Your task to perform on an android device: delete browsing data in the chrome app Image 0: 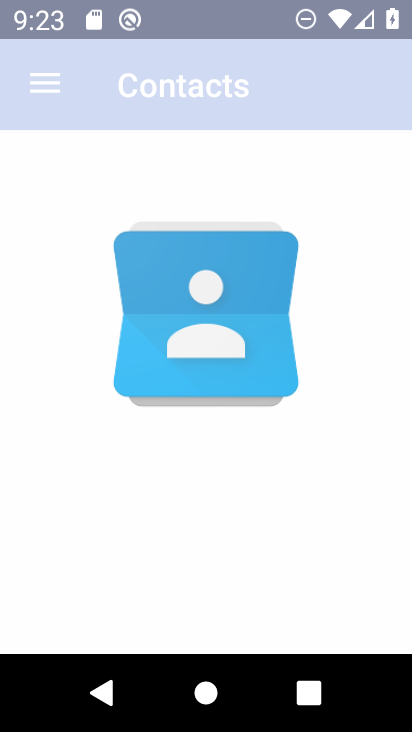
Step 0: drag from (257, 338) to (370, 132)
Your task to perform on an android device: delete browsing data in the chrome app Image 1: 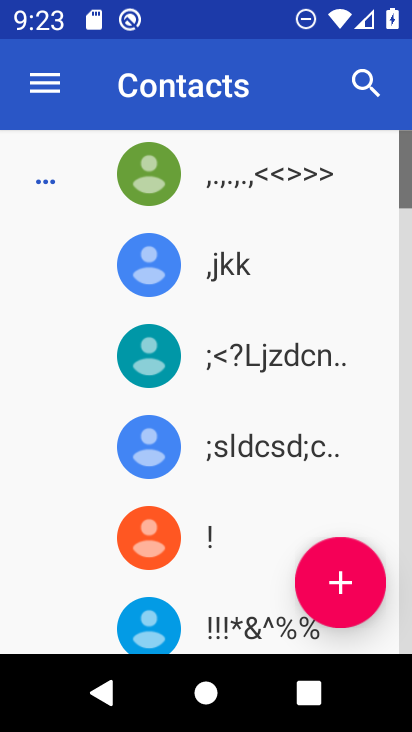
Step 1: press home button
Your task to perform on an android device: delete browsing data in the chrome app Image 2: 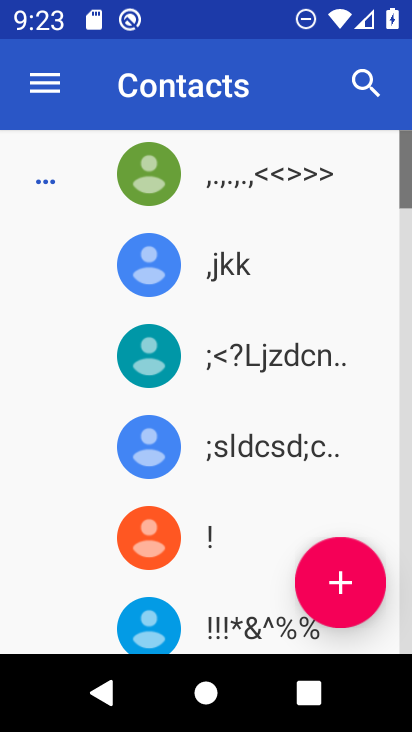
Step 2: drag from (370, 132) to (411, 393)
Your task to perform on an android device: delete browsing data in the chrome app Image 3: 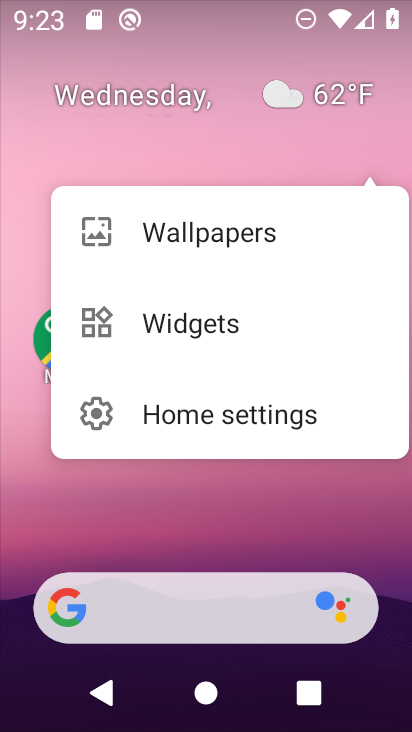
Step 3: click (214, 526)
Your task to perform on an android device: delete browsing data in the chrome app Image 4: 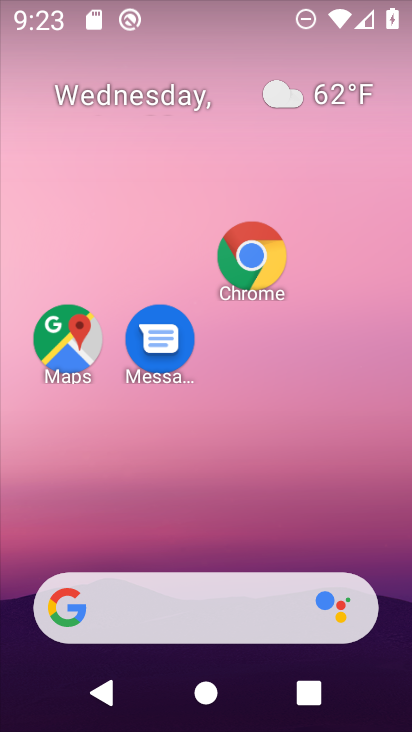
Step 4: click (249, 254)
Your task to perform on an android device: delete browsing data in the chrome app Image 5: 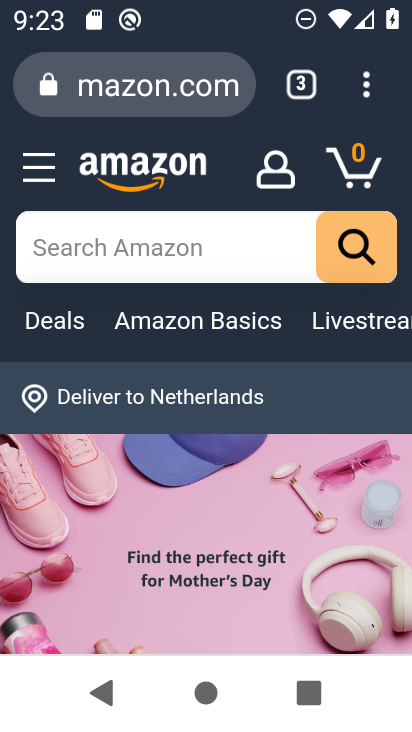
Step 5: click (360, 88)
Your task to perform on an android device: delete browsing data in the chrome app Image 6: 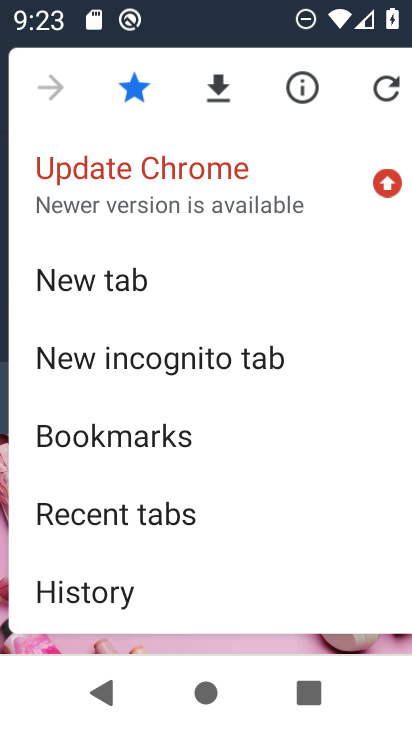
Step 6: drag from (240, 505) to (264, 72)
Your task to perform on an android device: delete browsing data in the chrome app Image 7: 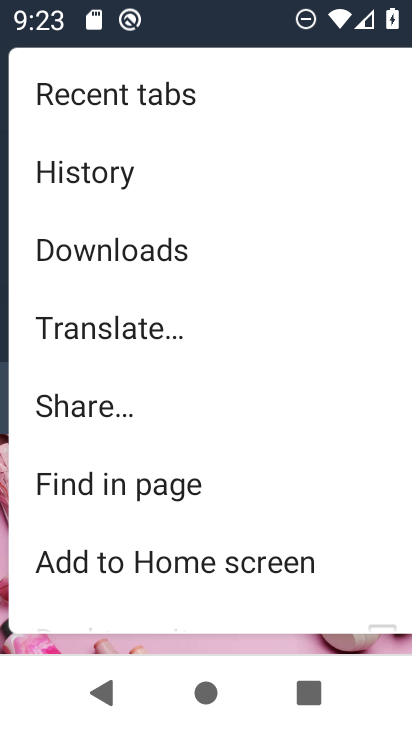
Step 7: drag from (179, 588) to (179, 252)
Your task to perform on an android device: delete browsing data in the chrome app Image 8: 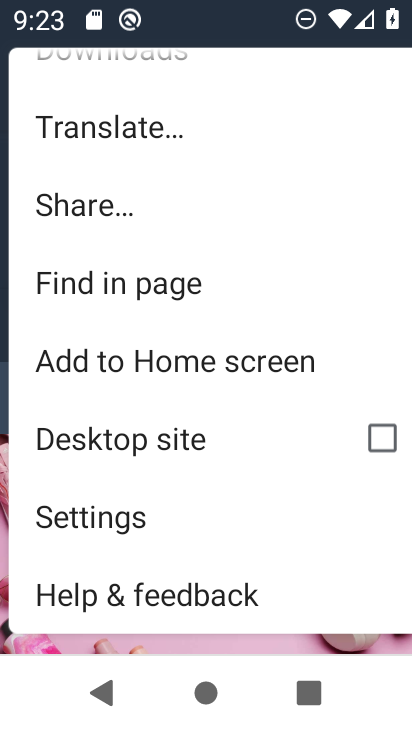
Step 8: click (140, 518)
Your task to perform on an android device: delete browsing data in the chrome app Image 9: 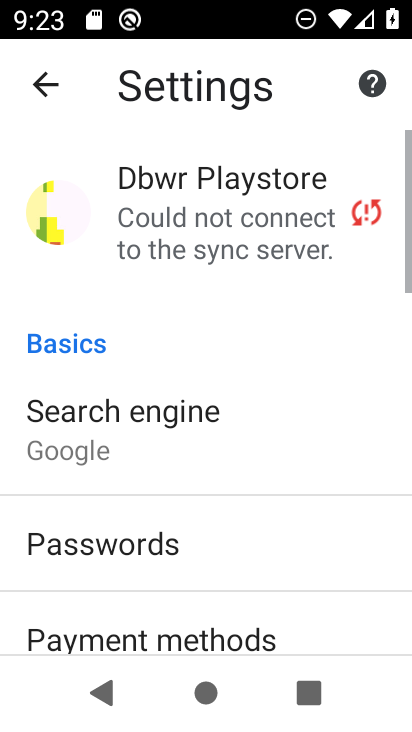
Step 9: drag from (257, 571) to (235, 151)
Your task to perform on an android device: delete browsing data in the chrome app Image 10: 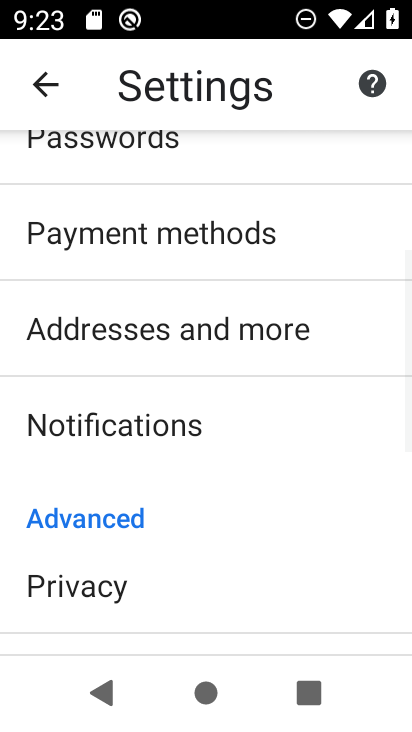
Step 10: drag from (193, 525) to (173, 118)
Your task to perform on an android device: delete browsing data in the chrome app Image 11: 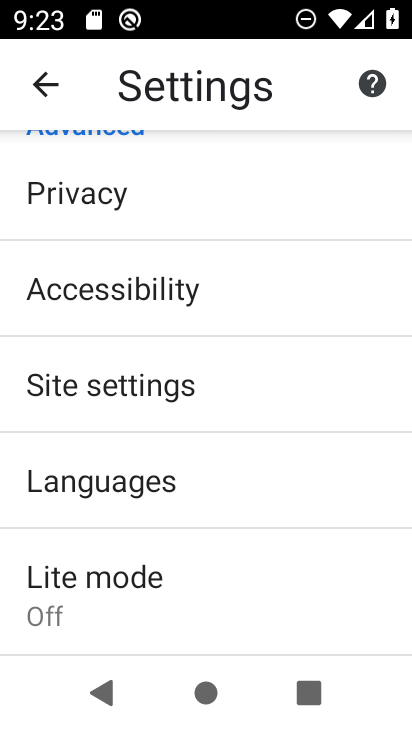
Step 11: click (82, 205)
Your task to perform on an android device: delete browsing data in the chrome app Image 12: 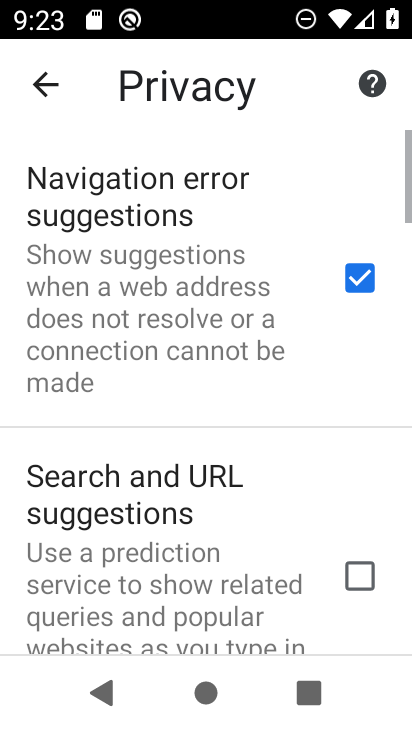
Step 12: drag from (229, 600) to (228, 137)
Your task to perform on an android device: delete browsing data in the chrome app Image 13: 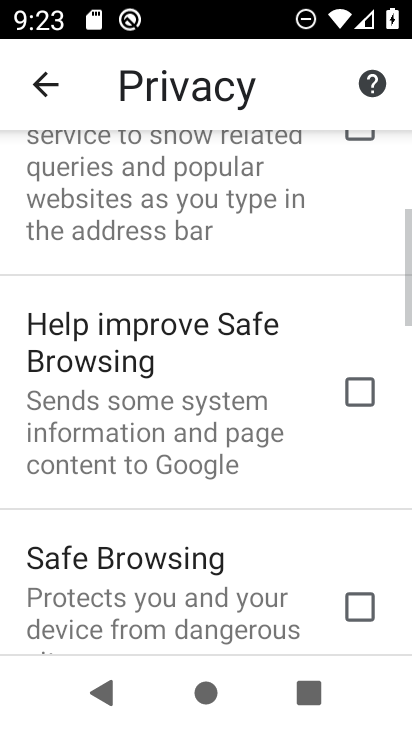
Step 13: drag from (244, 522) to (230, 120)
Your task to perform on an android device: delete browsing data in the chrome app Image 14: 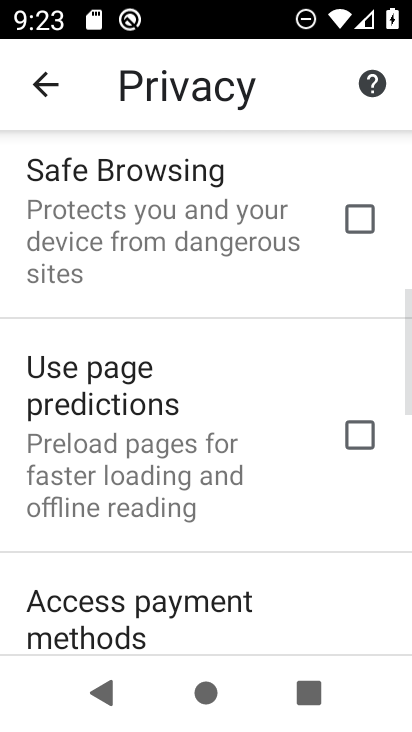
Step 14: drag from (265, 614) to (196, 81)
Your task to perform on an android device: delete browsing data in the chrome app Image 15: 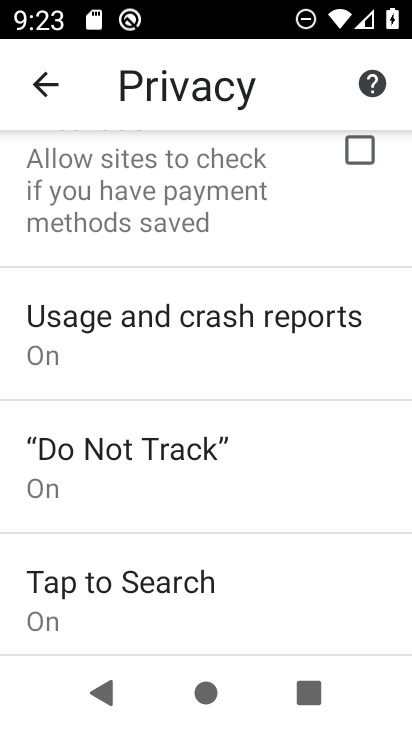
Step 15: drag from (280, 596) to (215, 99)
Your task to perform on an android device: delete browsing data in the chrome app Image 16: 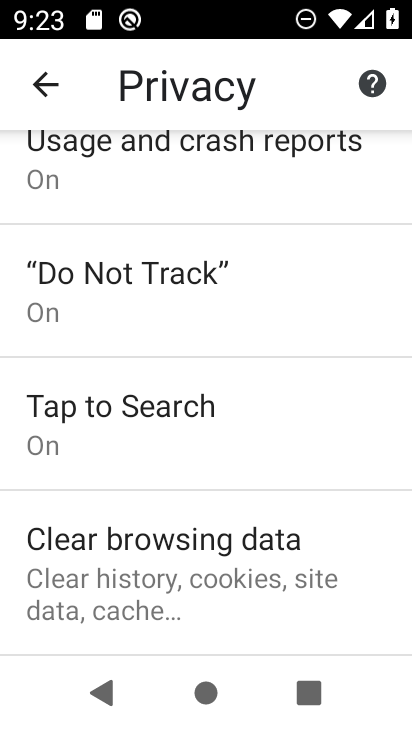
Step 16: click (263, 598)
Your task to perform on an android device: delete browsing data in the chrome app Image 17: 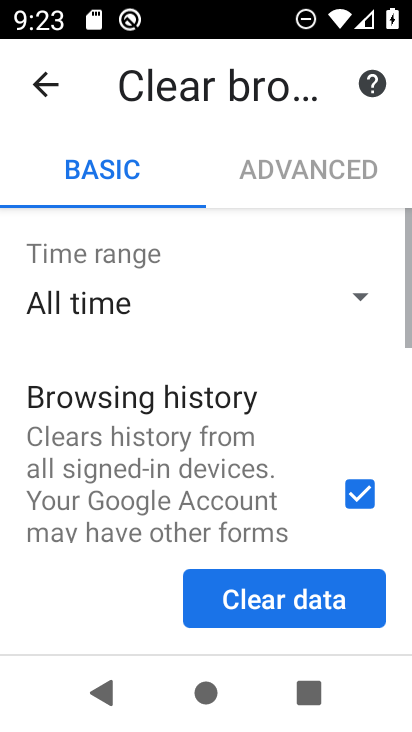
Step 17: drag from (330, 486) to (289, 225)
Your task to perform on an android device: delete browsing data in the chrome app Image 18: 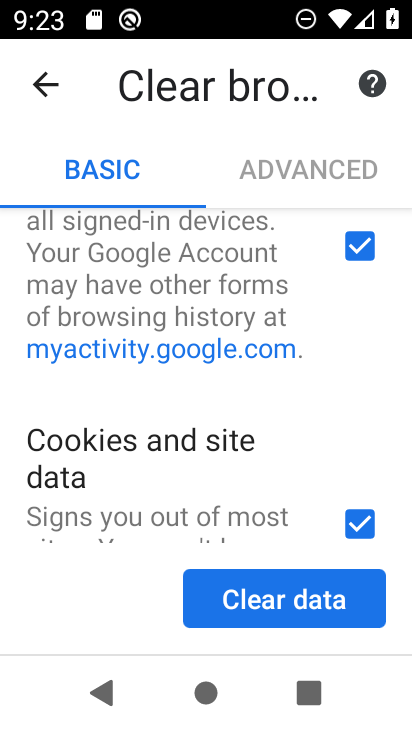
Step 18: click (361, 513)
Your task to perform on an android device: delete browsing data in the chrome app Image 19: 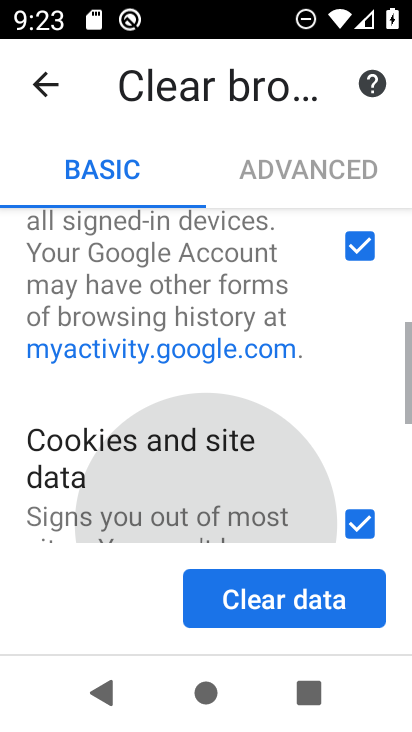
Step 19: drag from (232, 419) to (224, 188)
Your task to perform on an android device: delete browsing data in the chrome app Image 20: 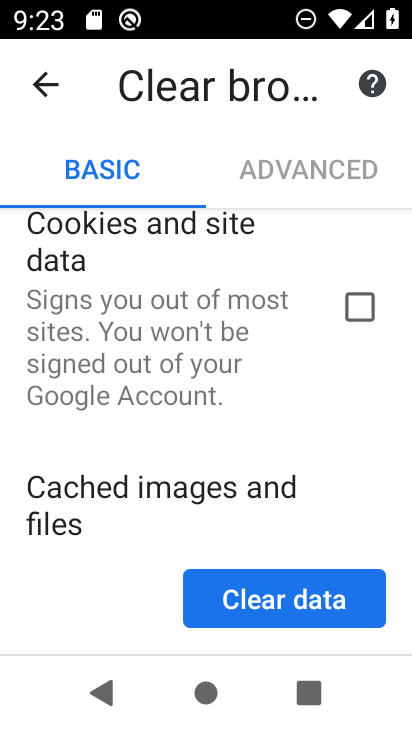
Step 20: drag from (300, 473) to (295, 247)
Your task to perform on an android device: delete browsing data in the chrome app Image 21: 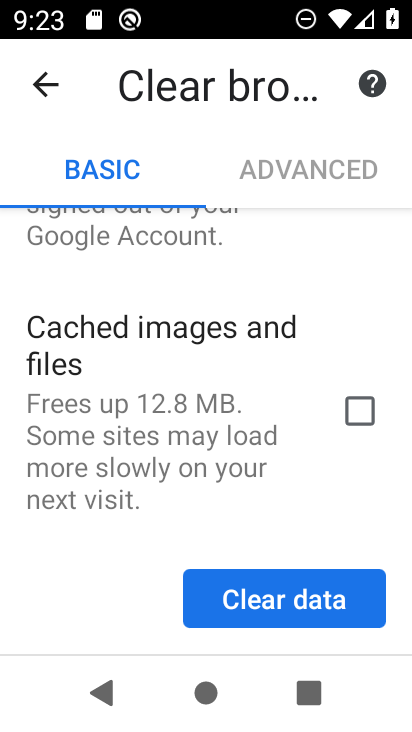
Step 21: click (261, 600)
Your task to perform on an android device: delete browsing data in the chrome app Image 22: 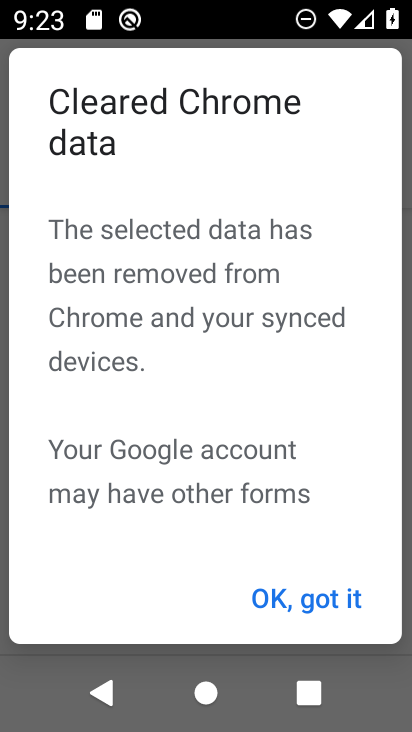
Step 22: click (326, 604)
Your task to perform on an android device: delete browsing data in the chrome app Image 23: 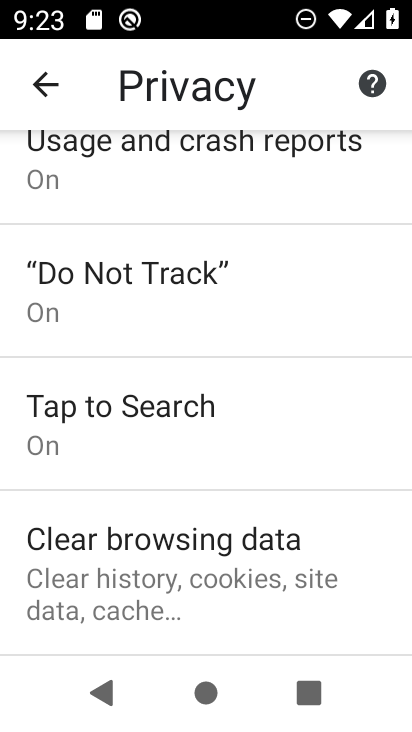
Step 23: task complete